Your task to perform on an android device: turn pop-ups on in chrome Image 0: 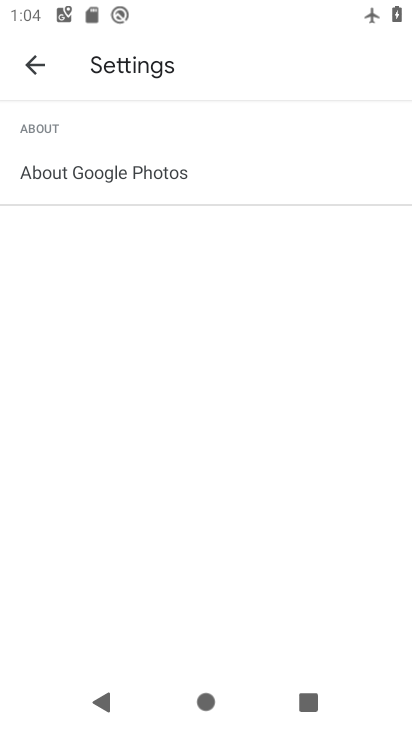
Step 0: press home button
Your task to perform on an android device: turn pop-ups on in chrome Image 1: 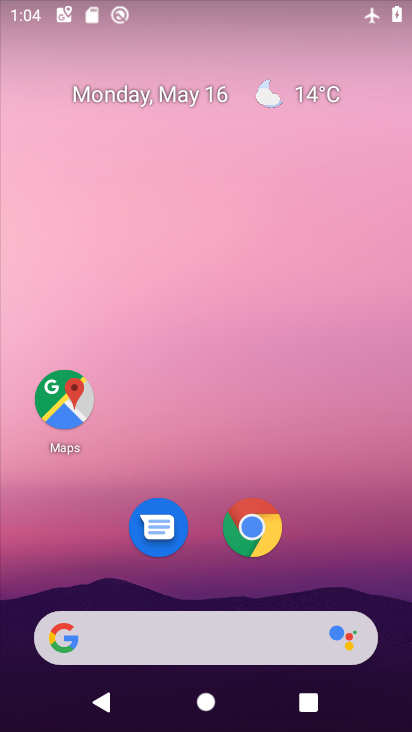
Step 1: click (258, 531)
Your task to perform on an android device: turn pop-ups on in chrome Image 2: 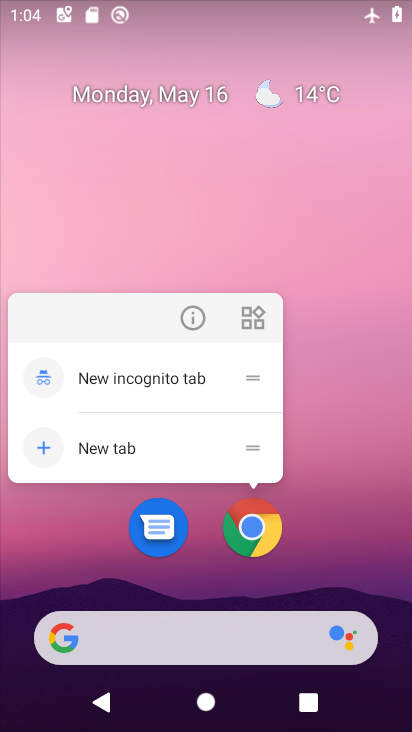
Step 2: click (241, 515)
Your task to perform on an android device: turn pop-ups on in chrome Image 3: 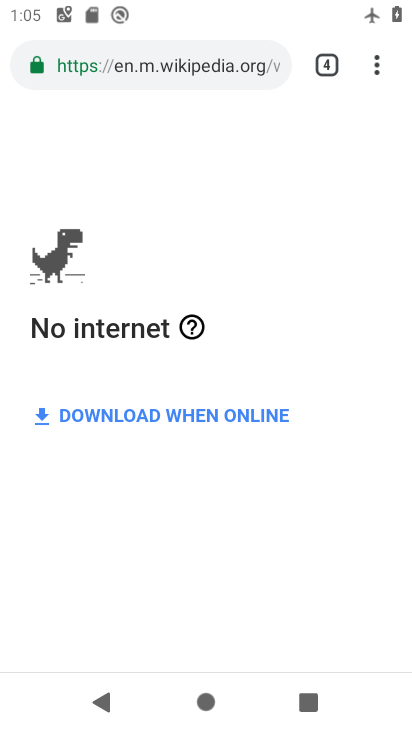
Step 3: click (384, 70)
Your task to perform on an android device: turn pop-ups on in chrome Image 4: 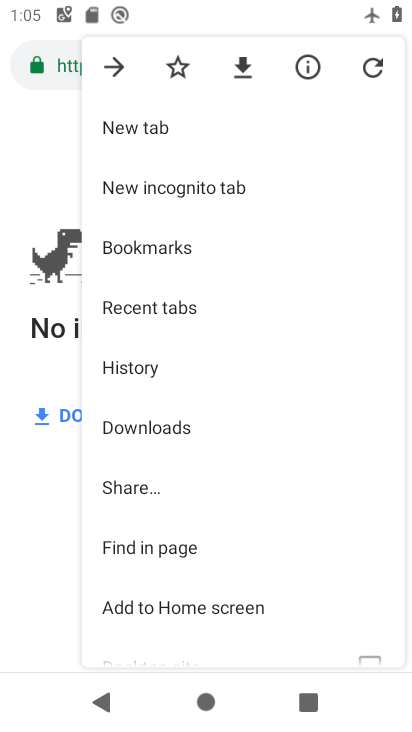
Step 4: drag from (197, 528) to (257, 42)
Your task to perform on an android device: turn pop-ups on in chrome Image 5: 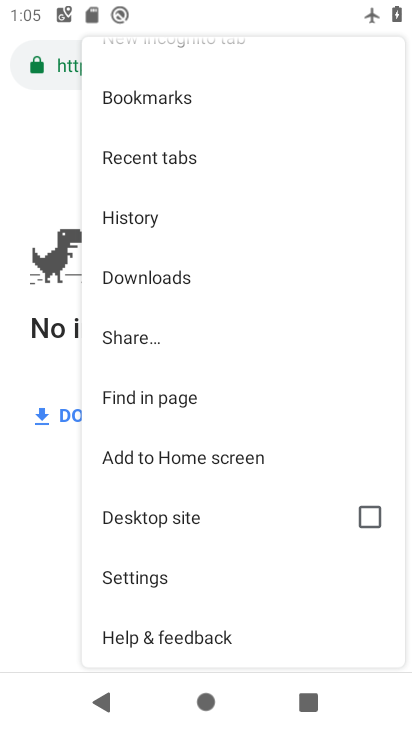
Step 5: click (160, 576)
Your task to perform on an android device: turn pop-ups on in chrome Image 6: 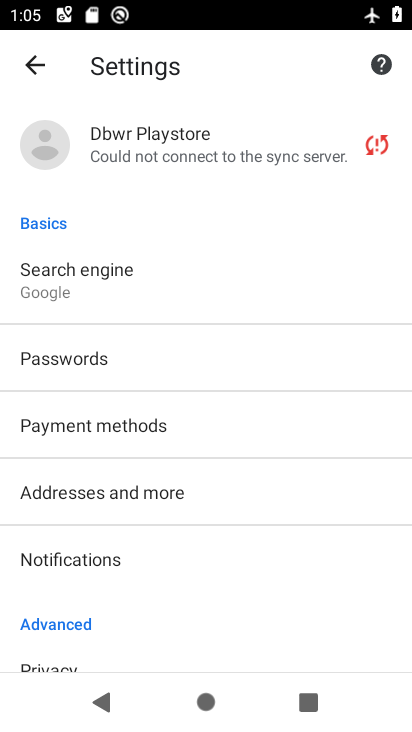
Step 6: drag from (137, 563) to (160, 44)
Your task to perform on an android device: turn pop-ups on in chrome Image 7: 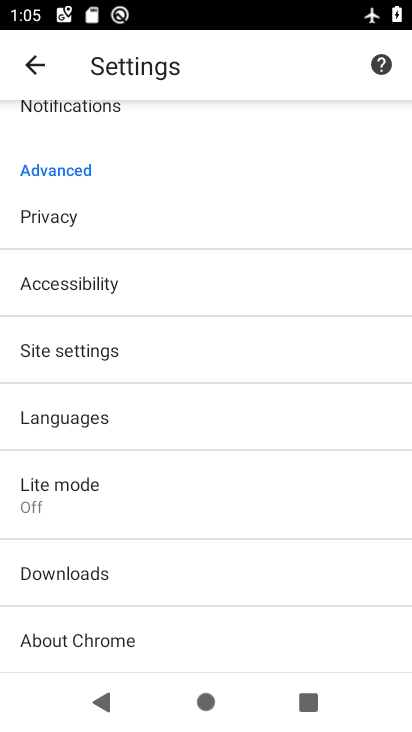
Step 7: click (75, 340)
Your task to perform on an android device: turn pop-ups on in chrome Image 8: 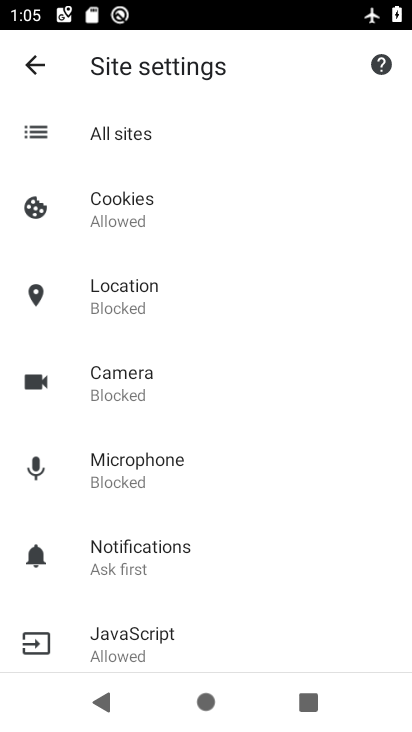
Step 8: drag from (152, 575) to (195, 238)
Your task to perform on an android device: turn pop-ups on in chrome Image 9: 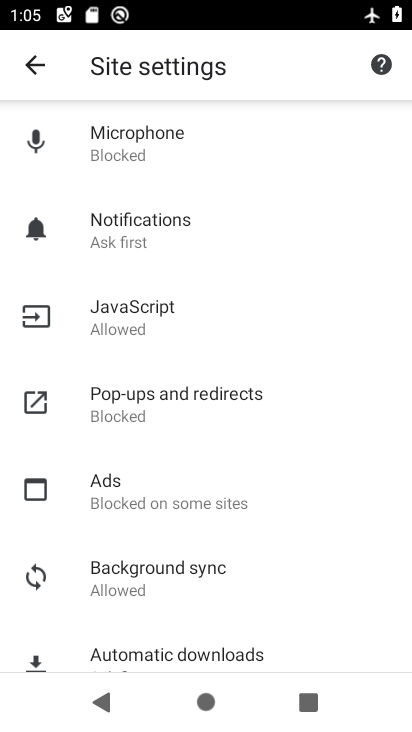
Step 9: click (159, 398)
Your task to perform on an android device: turn pop-ups on in chrome Image 10: 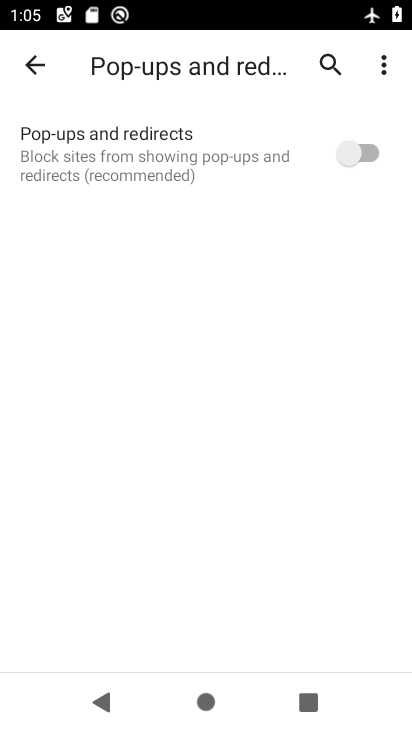
Step 10: click (374, 150)
Your task to perform on an android device: turn pop-ups on in chrome Image 11: 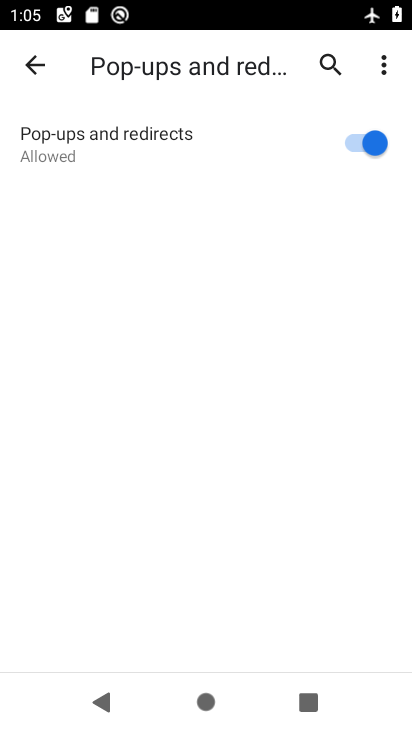
Step 11: task complete